Your task to perform on an android device: toggle wifi Image 0: 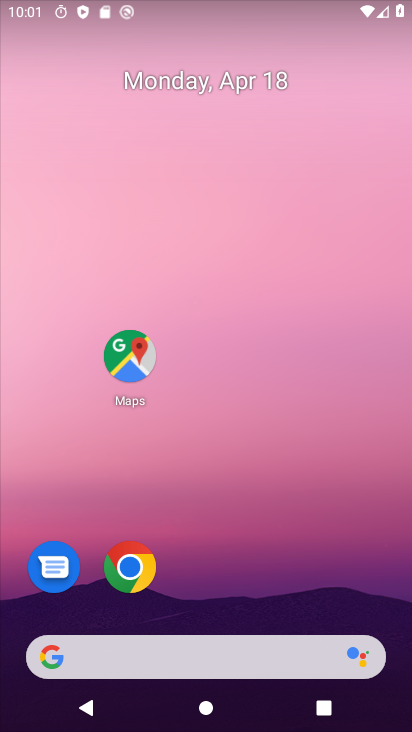
Step 0: drag from (255, 674) to (349, 170)
Your task to perform on an android device: toggle wifi Image 1: 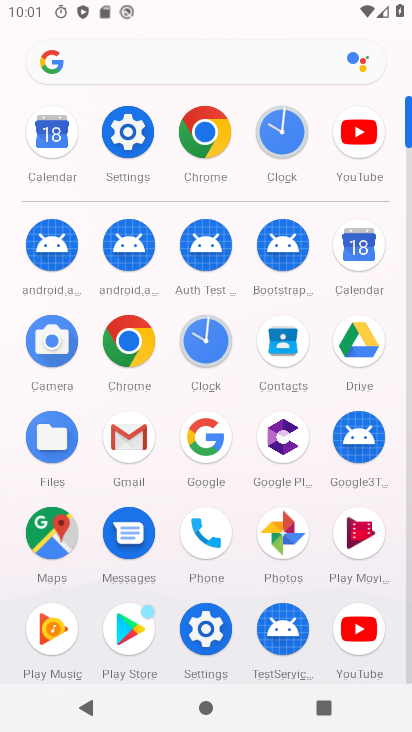
Step 1: click (136, 140)
Your task to perform on an android device: toggle wifi Image 2: 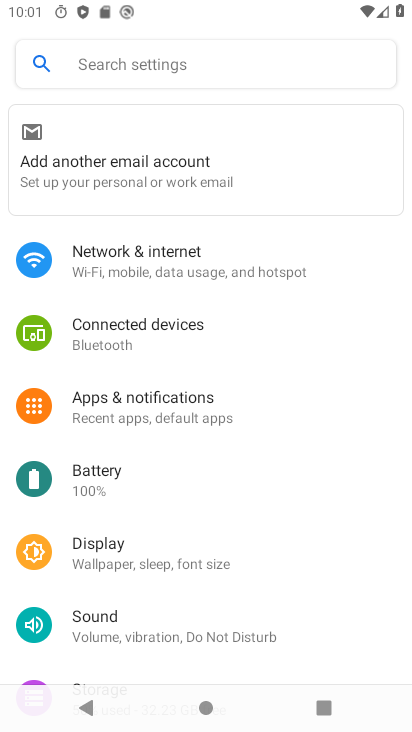
Step 2: click (96, 247)
Your task to perform on an android device: toggle wifi Image 3: 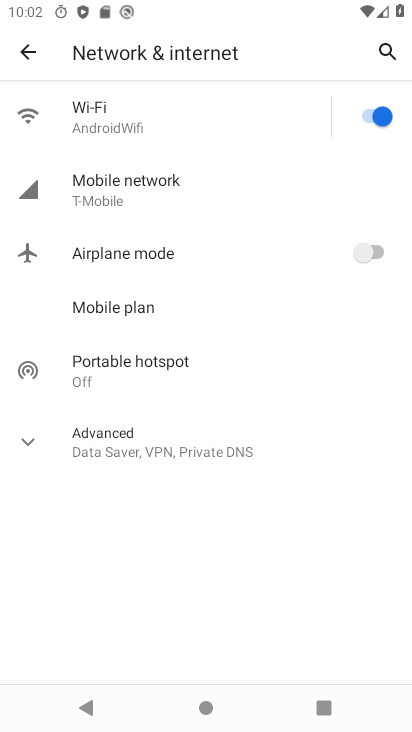
Step 3: click (149, 127)
Your task to perform on an android device: toggle wifi Image 4: 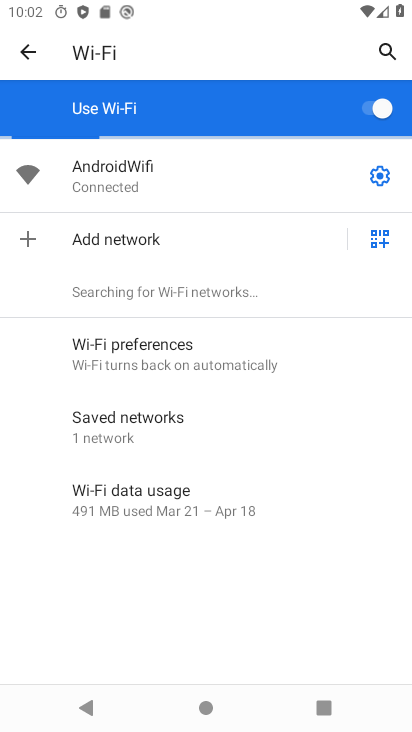
Step 4: task complete